Your task to perform on an android device: change timer sound Image 0: 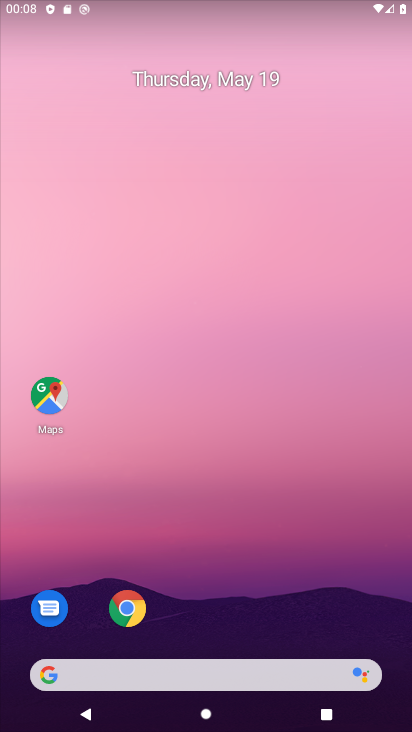
Step 0: drag from (287, 691) to (288, 197)
Your task to perform on an android device: change timer sound Image 1: 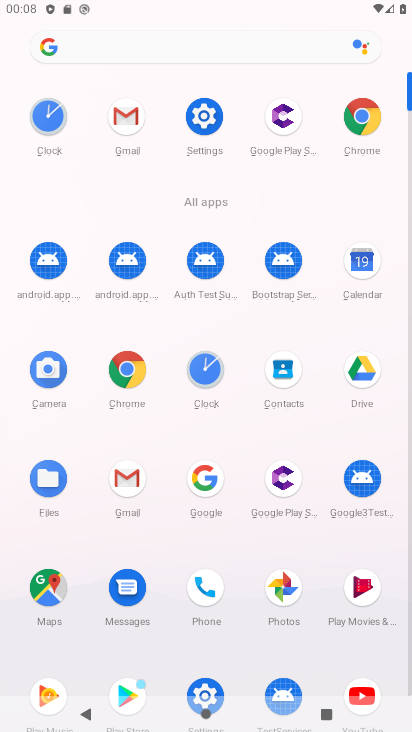
Step 1: click (194, 367)
Your task to perform on an android device: change timer sound Image 2: 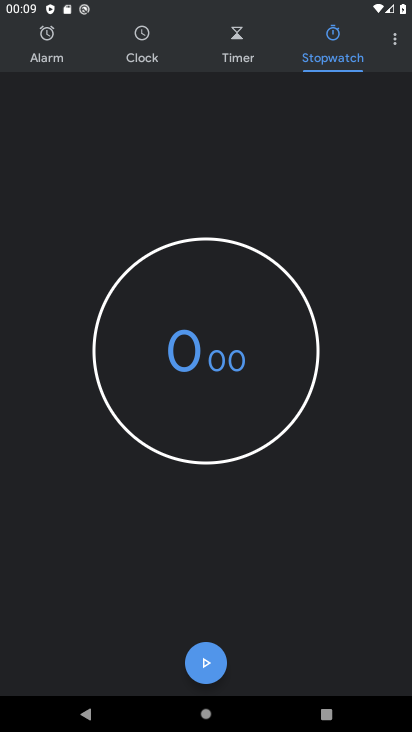
Step 2: click (392, 37)
Your task to perform on an android device: change timer sound Image 3: 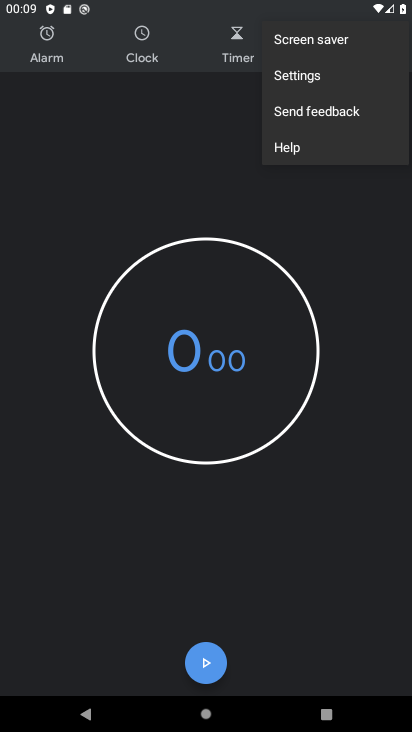
Step 3: click (294, 78)
Your task to perform on an android device: change timer sound Image 4: 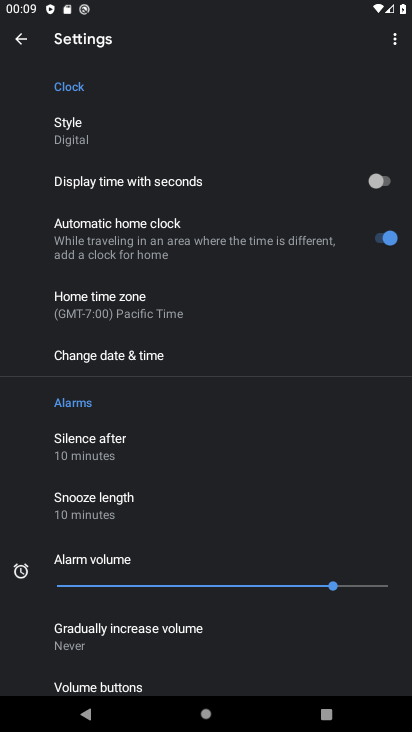
Step 4: drag from (153, 457) to (202, 240)
Your task to perform on an android device: change timer sound Image 5: 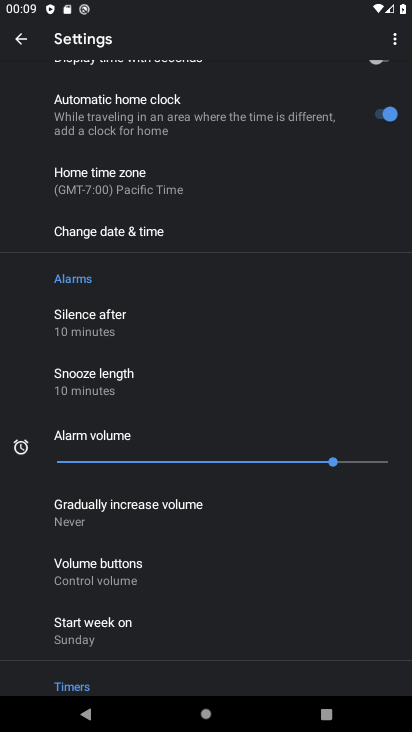
Step 5: drag from (151, 547) to (162, 371)
Your task to perform on an android device: change timer sound Image 6: 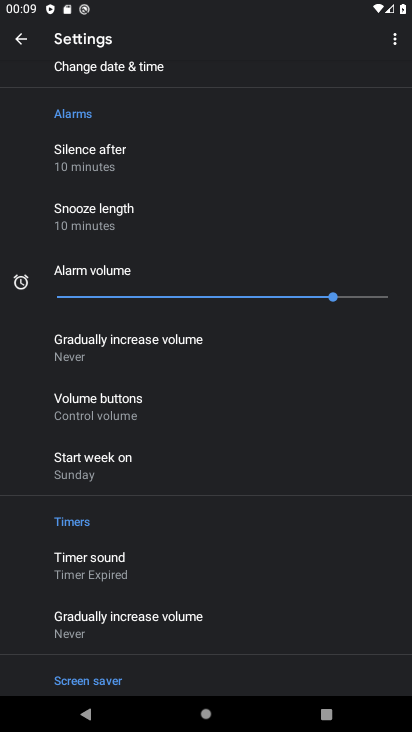
Step 6: click (126, 579)
Your task to perform on an android device: change timer sound Image 7: 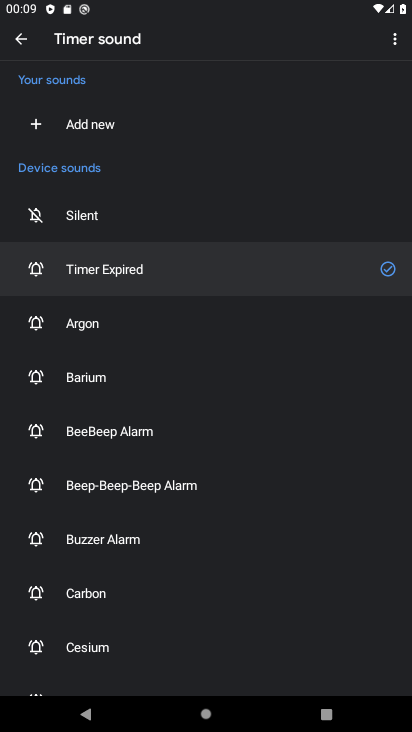
Step 7: click (79, 596)
Your task to perform on an android device: change timer sound Image 8: 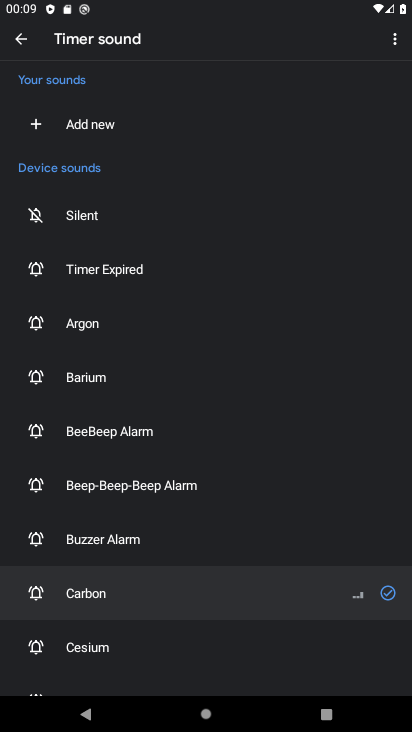
Step 8: click (108, 430)
Your task to perform on an android device: change timer sound Image 9: 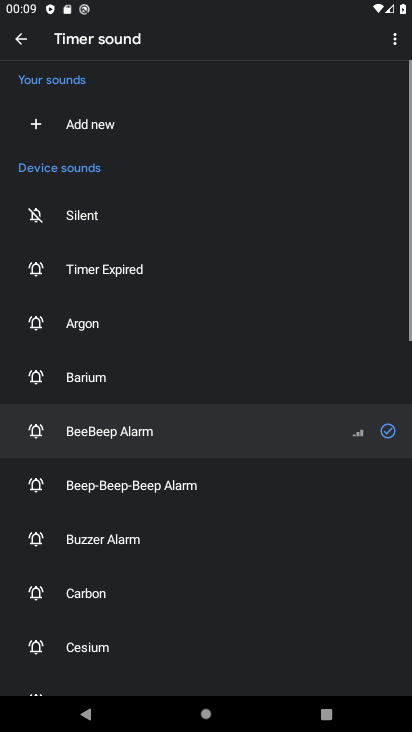
Step 9: task complete